Your task to perform on an android device: Open calendar and show me the third week of next month Image 0: 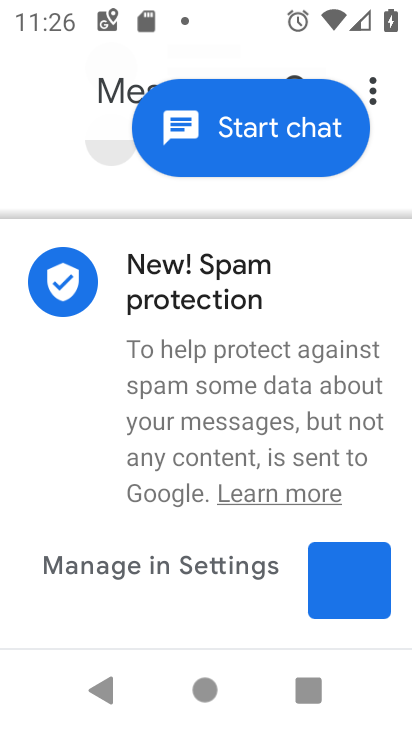
Step 0: press home button
Your task to perform on an android device: Open calendar and show me the third week of next month Image 1: 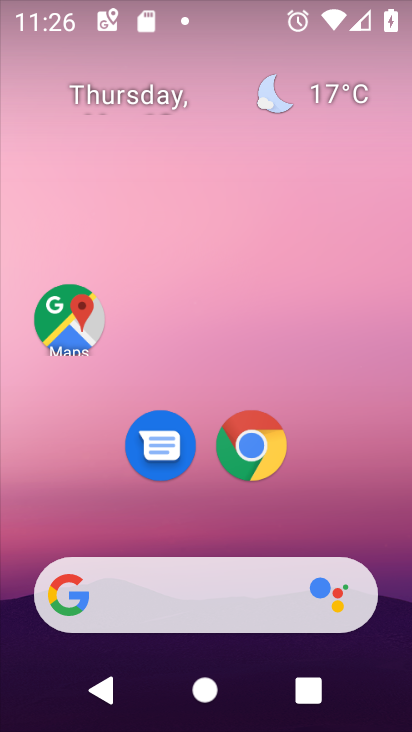
Step 1: drag from (219, 500) to (291, 188)
Your task to perform on an android device: Open calendar and show me the third week of next month Image 2: 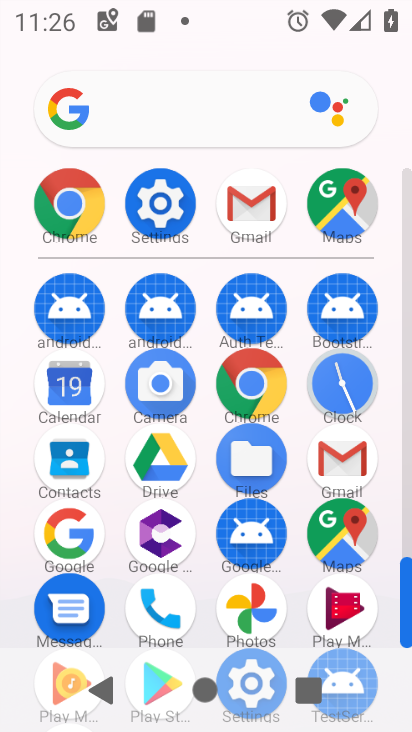
Step 2: click (48, 406)
Your task to perform on an android device: Open calendar and show me the third week of next month Image 3: 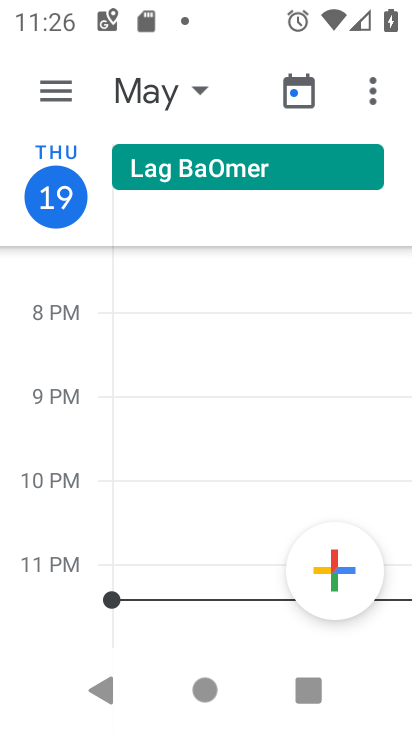
Step 3: click (75, 107)
Your task to perform on an android device: Open calendar and show me the third week of next month Image 4: 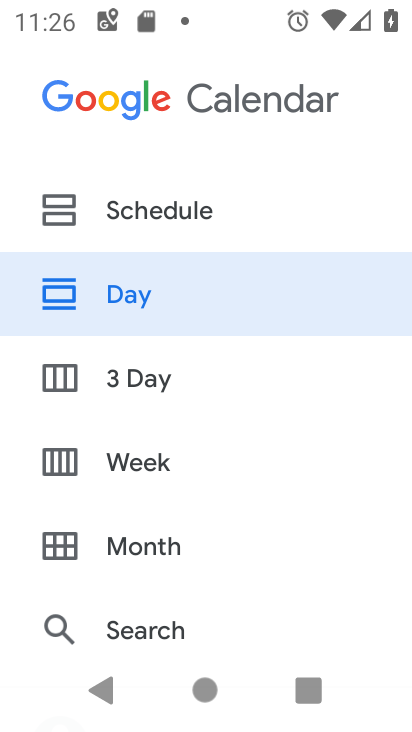
Step 4: click (147, 482)
Your task to perform on an android device: Open calendar and show me the third week of next month Image 5: 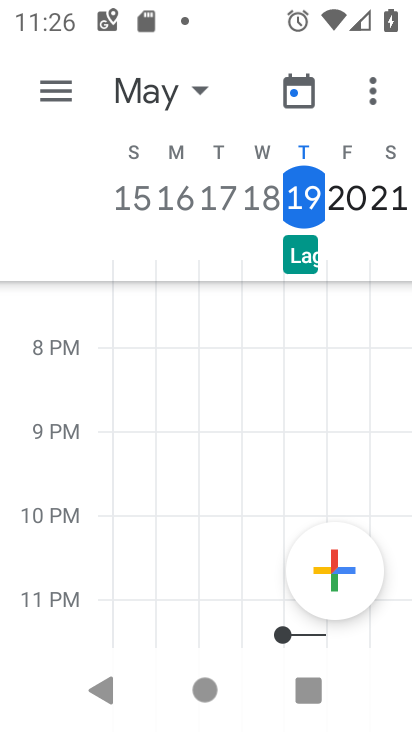
Step 5: click (200, 109)
Your task to perform on an android device: Open calendar and show me the third week of next month Image 6: 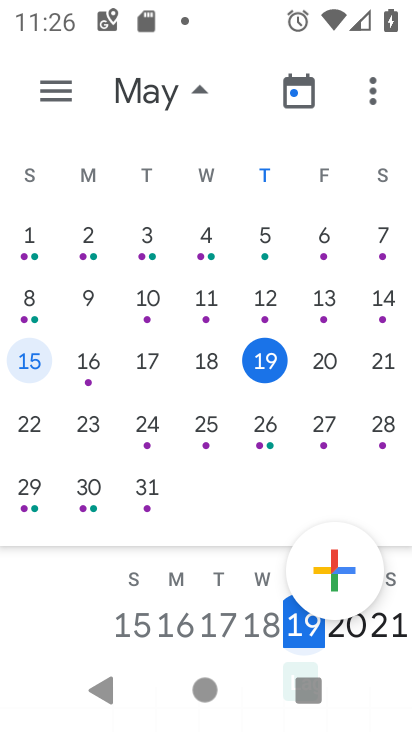
Step 6: drag from (329, 364) to (0, 355)
Your task to perform on an android device: Open calendar and show me the third week of next month Image 7: 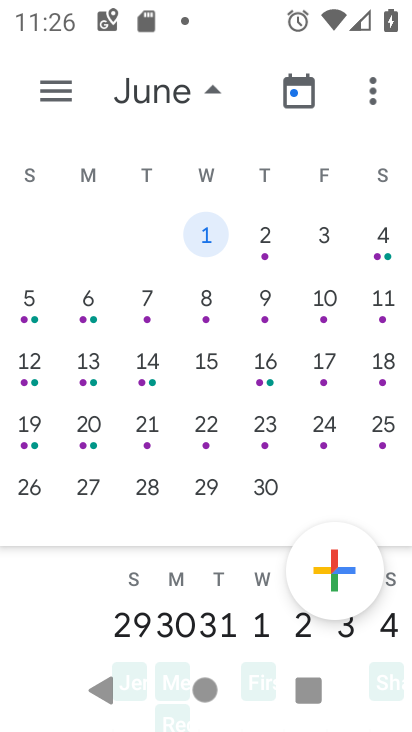
Step 7: click (25, 379)
Your task to perform on an android device: Open calendar and show me the third week of next month Image 8: 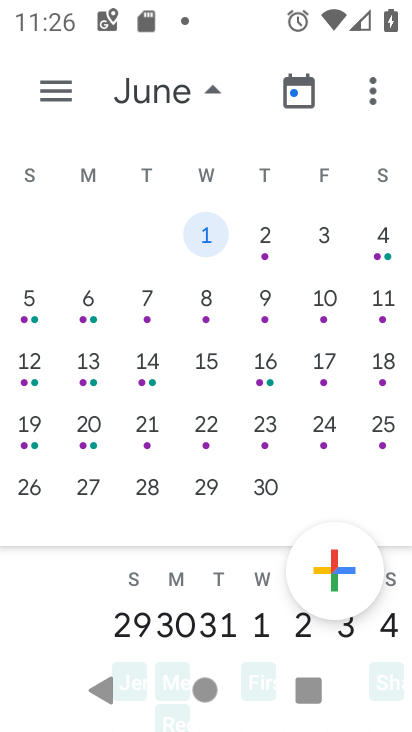
Step 8: click (48, 367)
Your task to perform on an android device: Open calendar and show me the third week of next month Image 9: 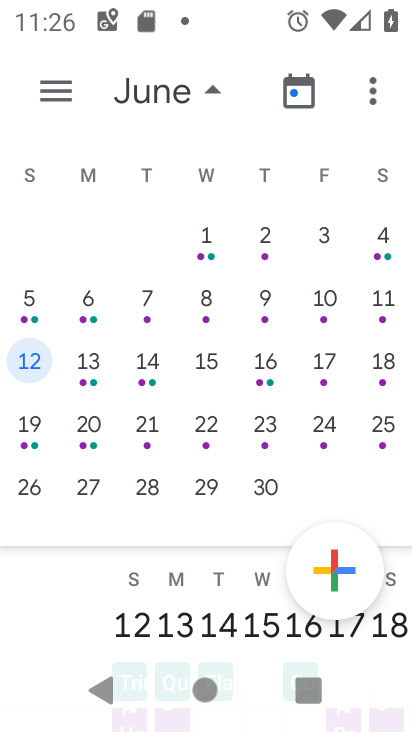
Step 9: click (171, 101)
Your task to perform on an android device: Open calendar and show me the third week of next month Image 10: 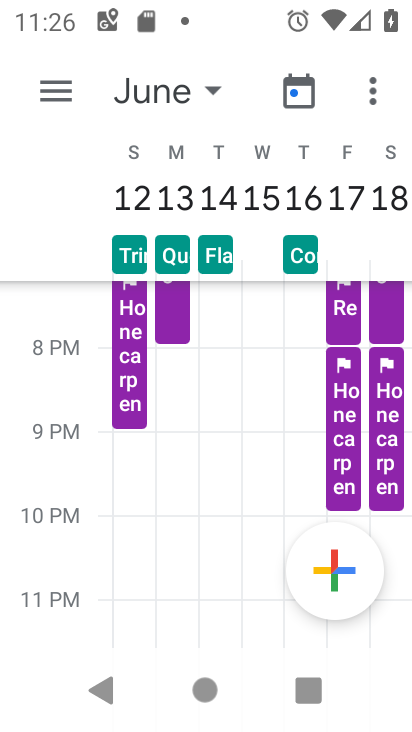
Step 10: task complete